Your task to perform on an android device: open app "Google Play services" (install if not already installed) Image 0: 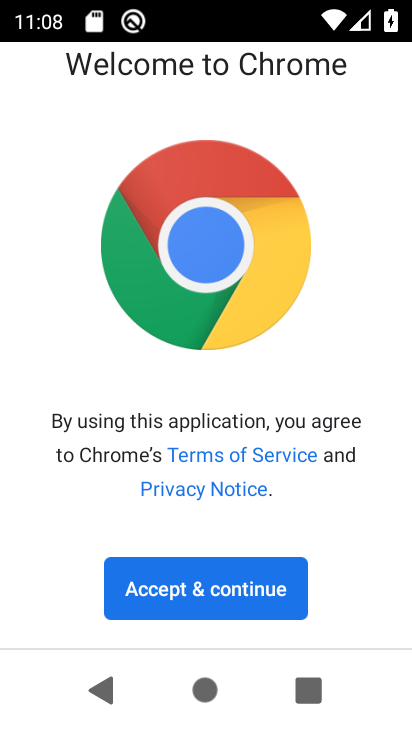
Step 0: press home button
Your task to perform on an android device: open app "Google Play services" (install if not already installed) Image 1: 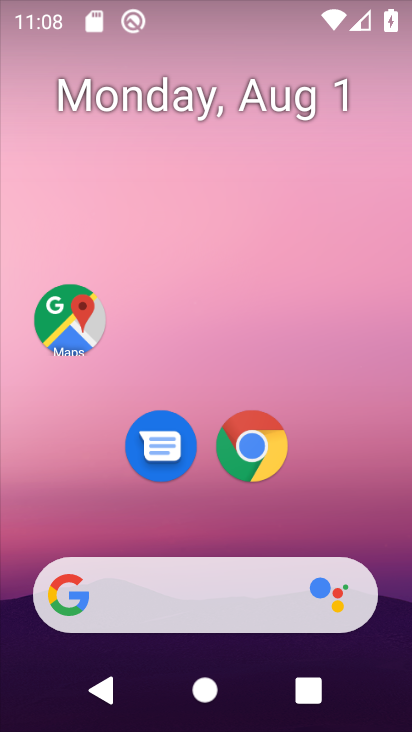
Step 1: drag from (209, 510) to (192, 112)
Your task to perform on an android device: open app "Google Play services" (install if not already installed) Image 2: 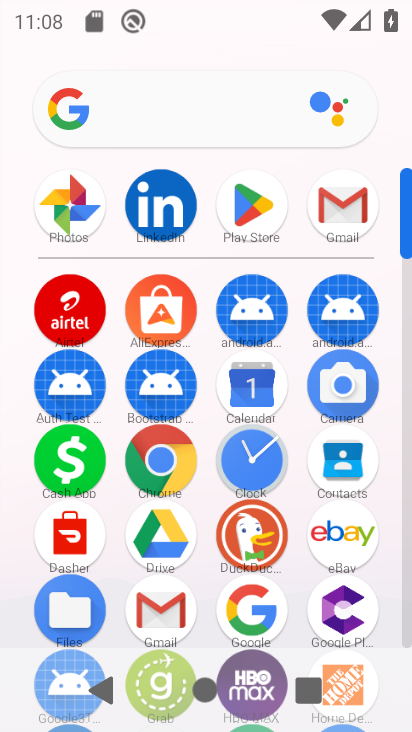
Step 2: click (238, 228)
Your task to perform on an android device: open app "Google Play services" (install if not already installed) Image 3: 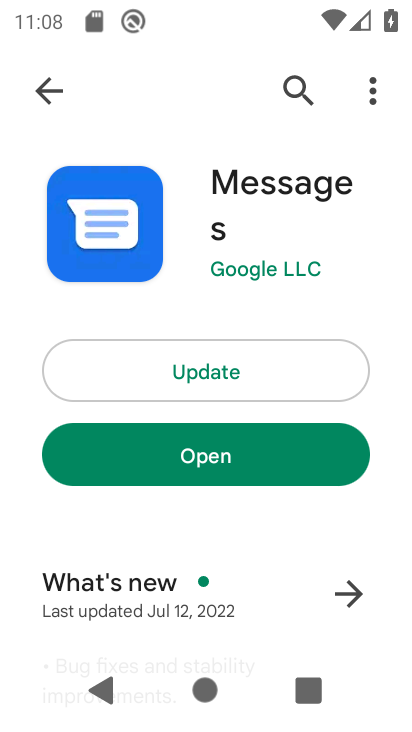
Step 3: click (292, 86)
Your task to perform on an android device: open app "Google Play services" (install if not already installed) Image 4: 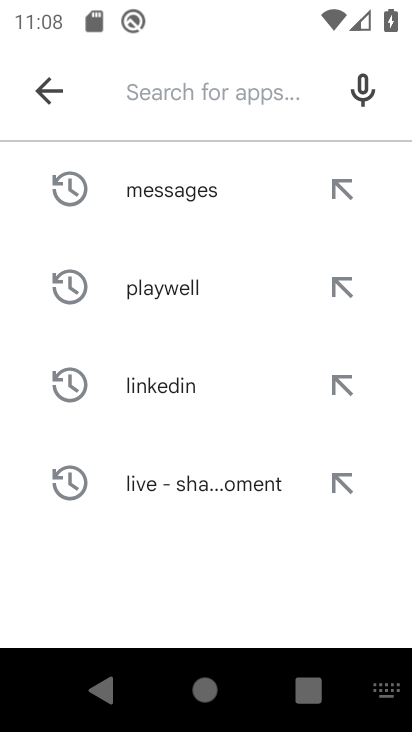
Step 4: type "Google Play services"
Your task to perform on an android device: open app "Google Play services" (install if not already installed) Image 5: 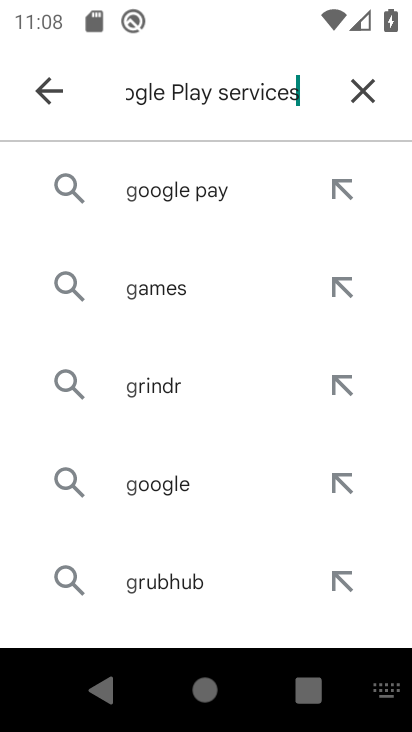
Step 5: type ""
Your task to perform on an android device: open app "Google Play services" (install if not already installed) Image 6: 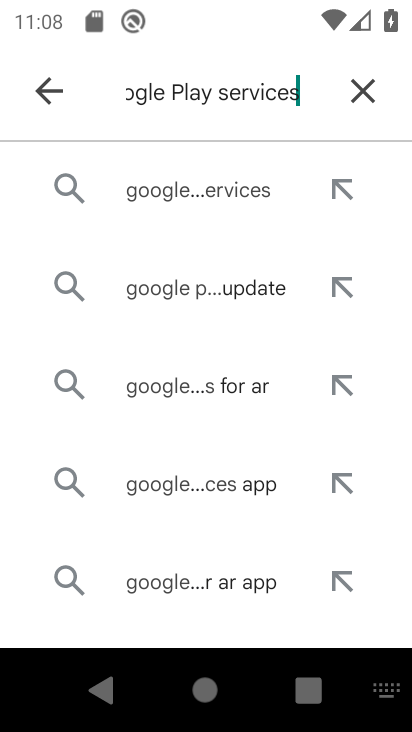
Step 6: click (205, 190)
Your task to perform on an android device: open app "Google Play services" (install if not already installed) Image 7: 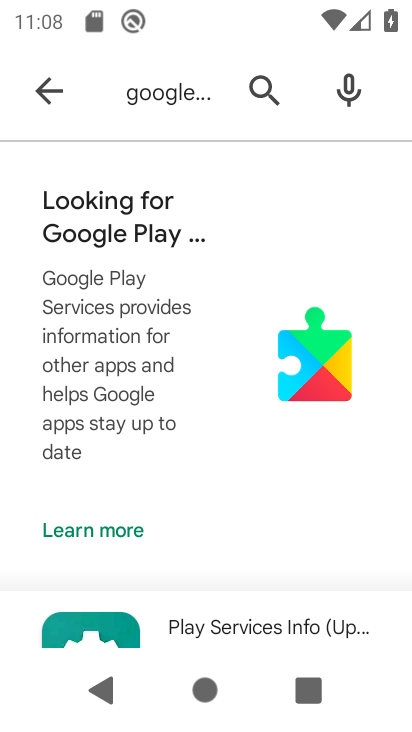
Step 7: drag from (194, 517) to (244, 163)
Your task to perform on an android device: open app "Google Play services" (install if not already installed) Image 8: 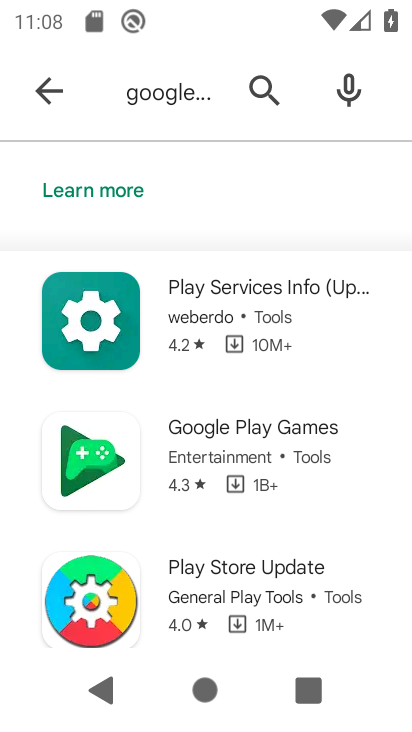
Step 8: drag from (241, 185) to (239, 502)
Your task to perform on an android device: open app "Google Play services" (install if not already installed) Image 9: 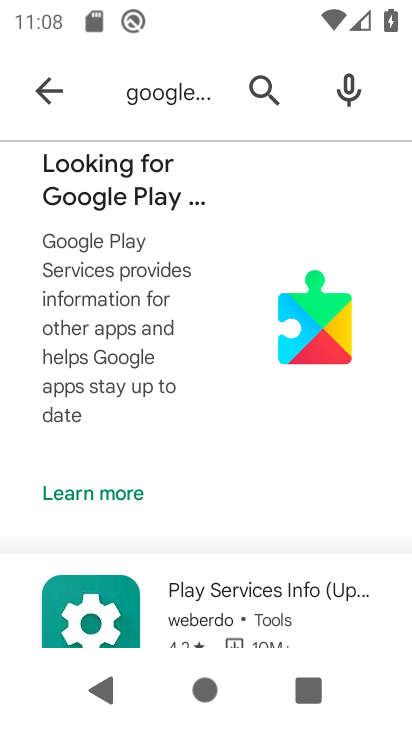
Step 9: click (109, 286)
Your task to perform on an android device: open app "Google Play services" (install if not already installed) Image 10: 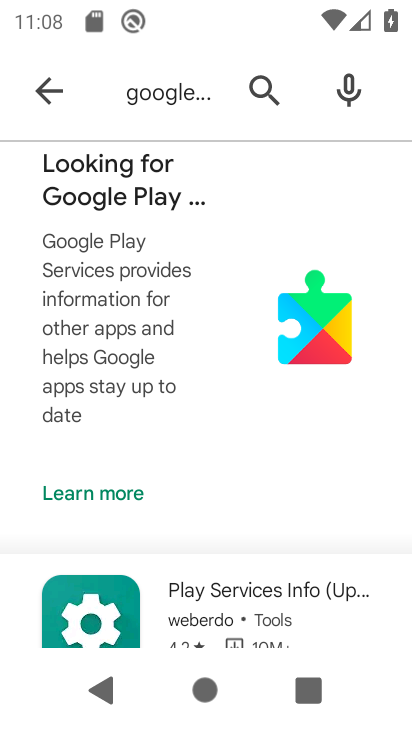
Step 10: click (317, 332)
Your task to perform on an android device: open app "Google Play services" (install if not already installed) Image 11: 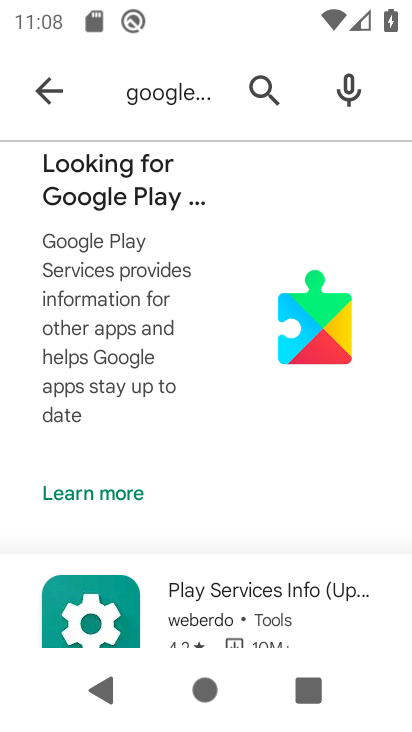
Step 11: click (120, 494)
Your task to perform on an android device: open app "Google Play services" (install if not already installed) Image 12: 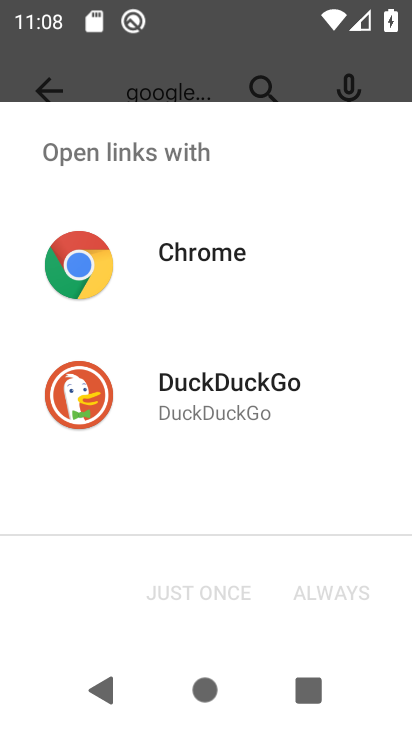
Step 12: task complete